Your task to perform on an android device: Go to accessibility settings Image 0: 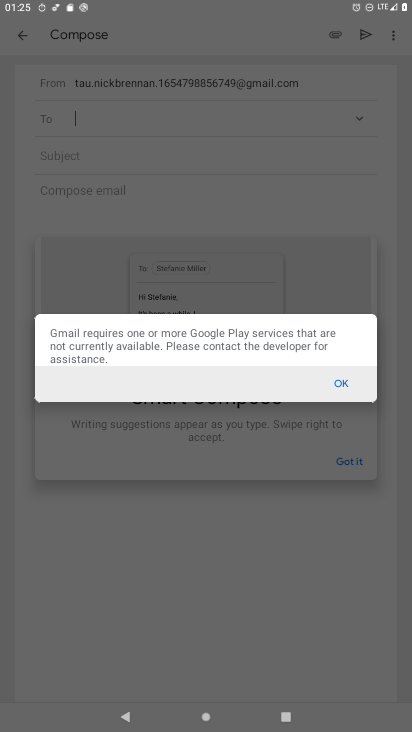
Step 0: press home button
Your task to perform on an android device: Go to accessibility settings Image 1: 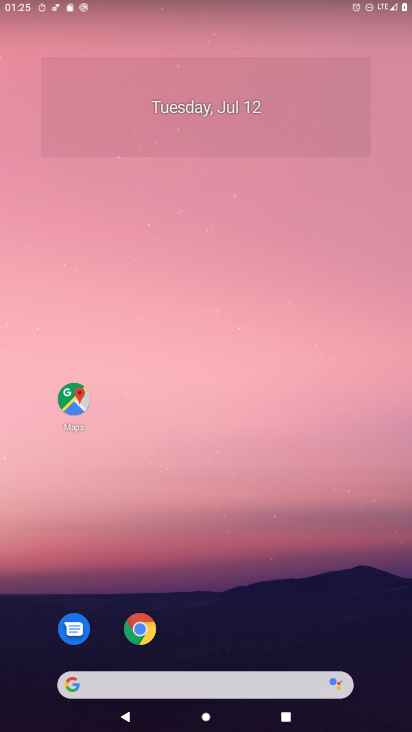
Step 1: drag from (47, 718) to (142, 171)
Your task to perform on an android device: Go to accessibility settings Image 2: 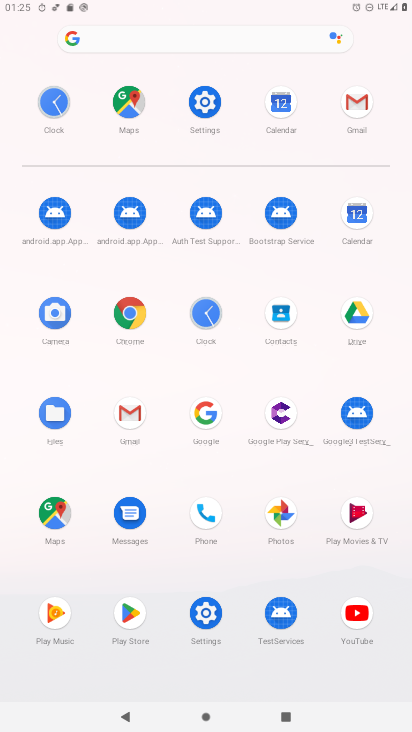
Step 2: click (207, 620)
Your task to perform on an android device: Go to accessibility settings Image 3: 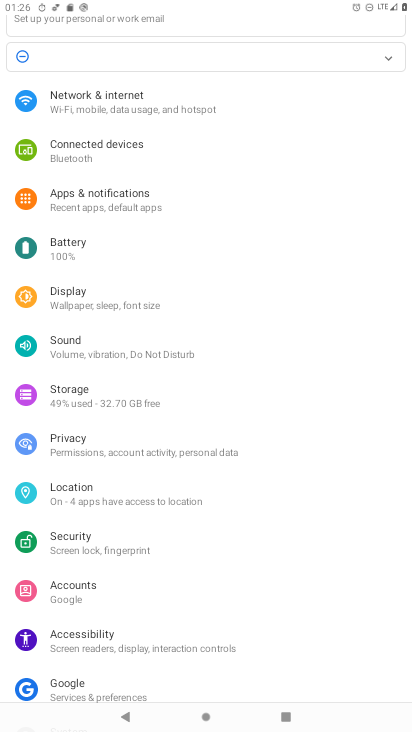
Step 3: click (108, 628)
Your task to perform on an android device: Go to accessibility settings Image 4: 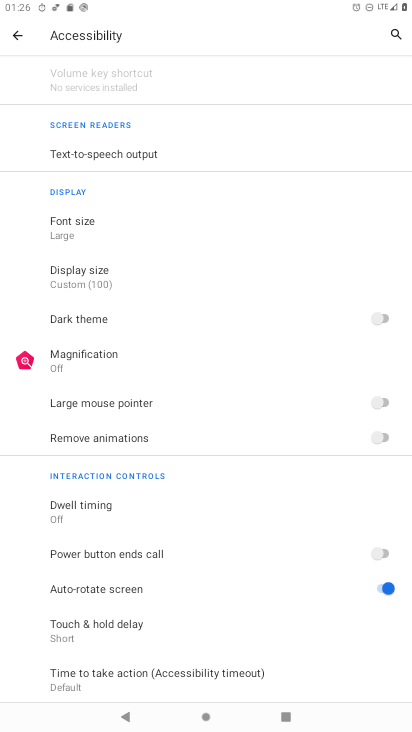
Step 4: task complete